Your task to perform on an android device: Open the calendar and show me this week's events? Image 0: 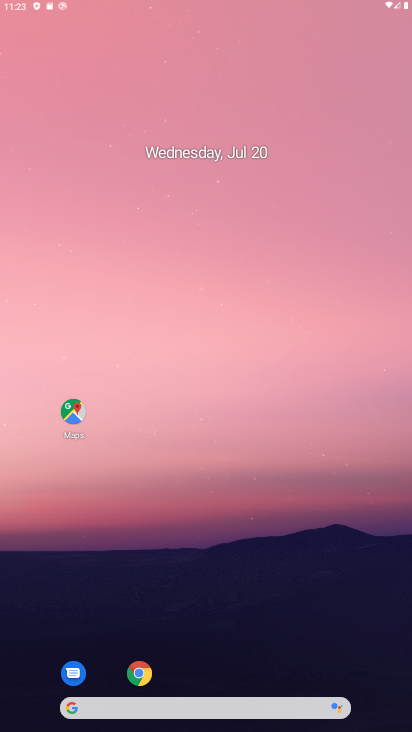
Step 0: click (288, 0)
Your task to perform on an android device: Open the calendar and show me this week's events? Image 1: 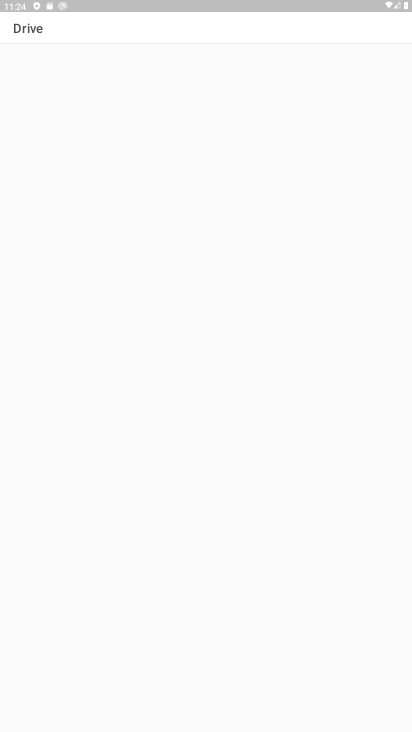
Step 1: press home button
Your task to perform on an android device: Open the calendar and show me this week's events? Image 2: 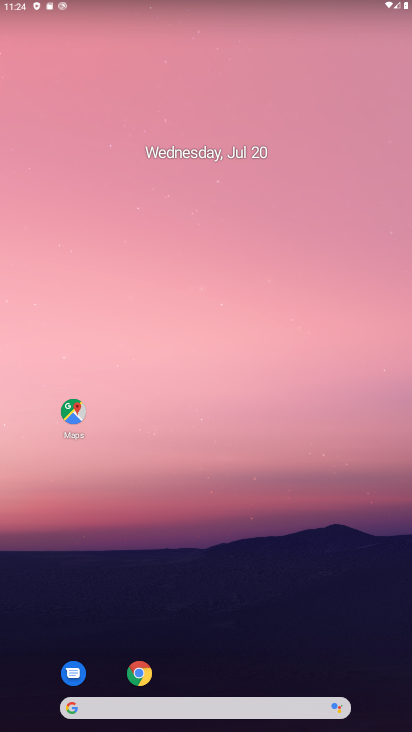
Step 2: drag from (247, 662) to (328, 64)
Your task to perform on an android device: Open the calendar and show me this week's events? Image 3: 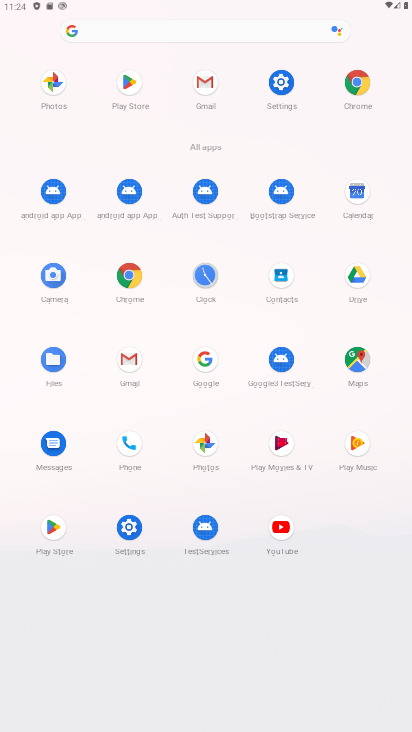
Step 3: click (351, 187)
Your task to perform on an android device: Open the calendar and show me this week's events? Image 4: 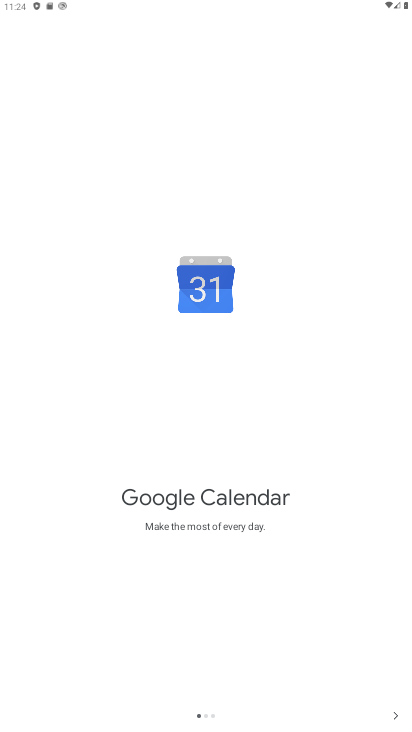
Step 4: click (390, 715)
Your task to perform on an android device: Open the calendar and show me this week's events? Image 5: 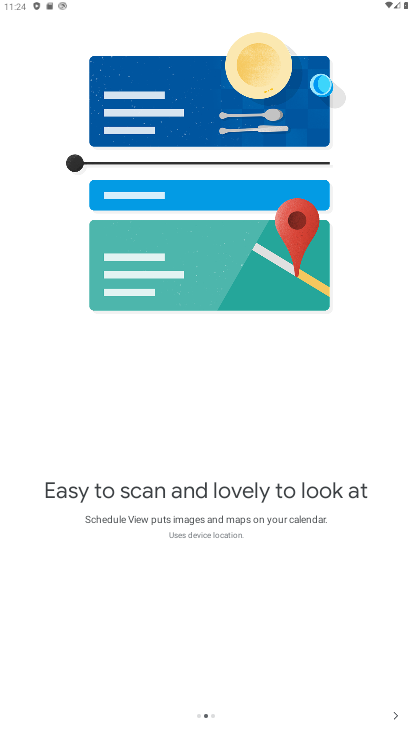
Step 5: click (390, 715)
Your task to perform on an android device: Open the calendar and show me this week's events? Image 6: 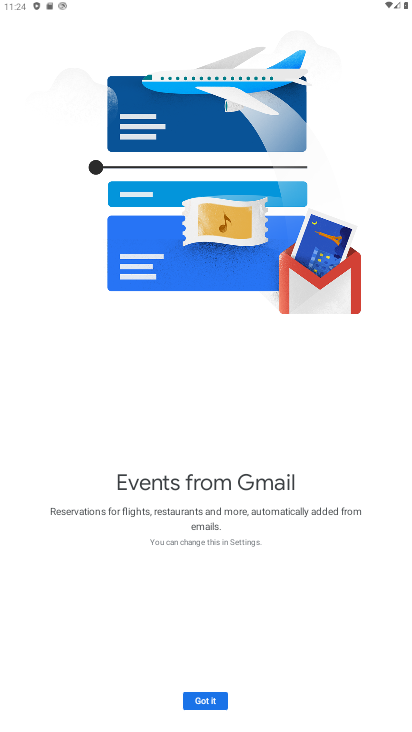
Step 6: click (205, 702)
Your task to perform on an android device: Open the calendar and show me this week's events? Image 7: 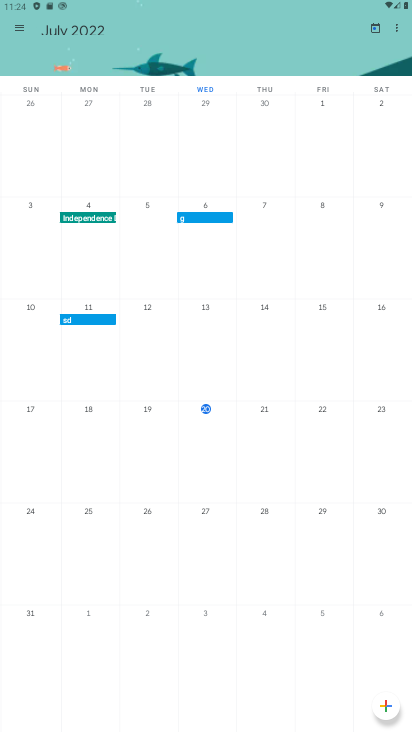
Step 7: click (258, 406)
Your task to perform on an android device: Open the calendar and show me this week's events? Image 8: 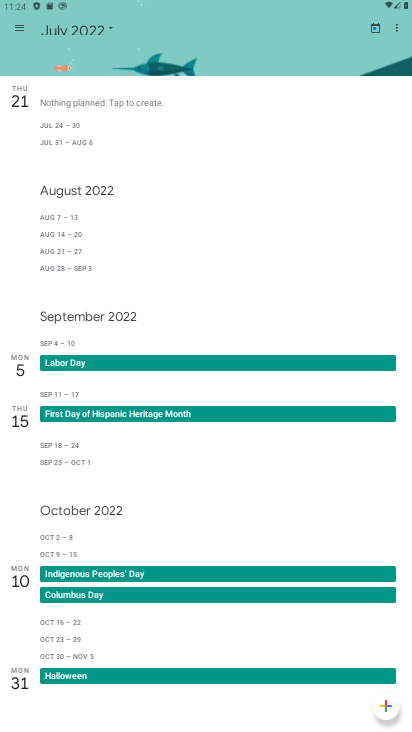
Step 8: task complete